Your task to perform on an android device: turn vacation reply on in the gmail app Image 0: 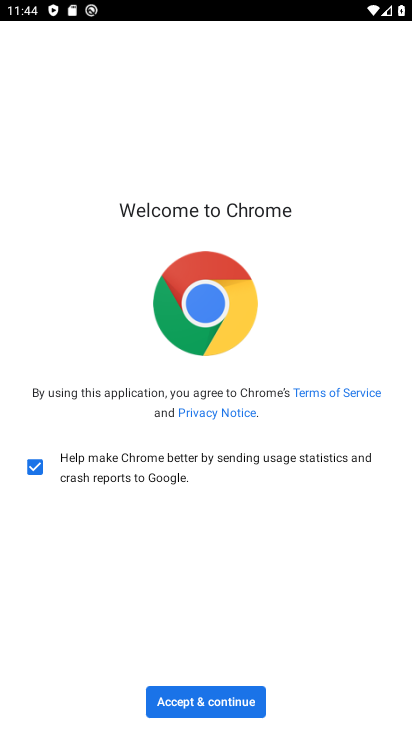
Step 0: press home button
Your task to perform on an android device: turn vacation reply on in the gmail app Image 1: 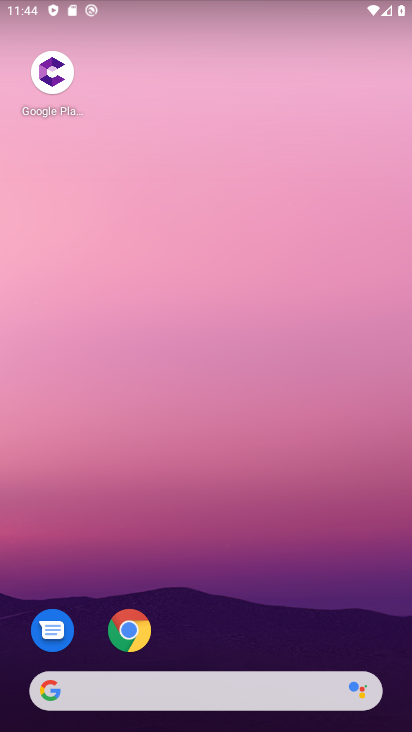
Step 1: drag from (186, 616) to (229, 123)
Your task to perform on an android device: turn vacation reply on in the gmail app Image 2: 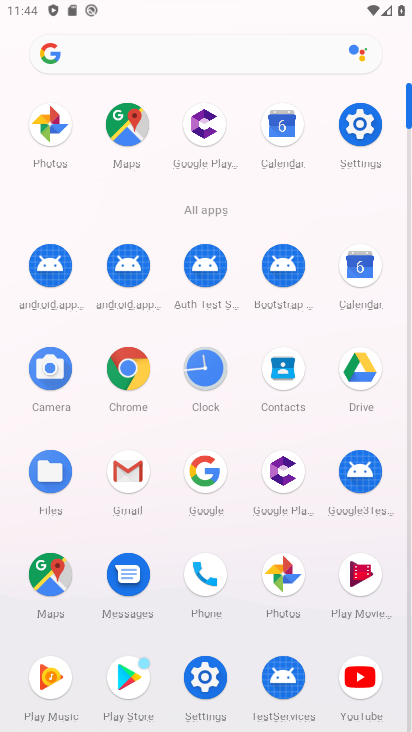
Step 2: click (130, 481)
Your task to perform on an android device: turn vacation reply on in the gmail app Image 3: 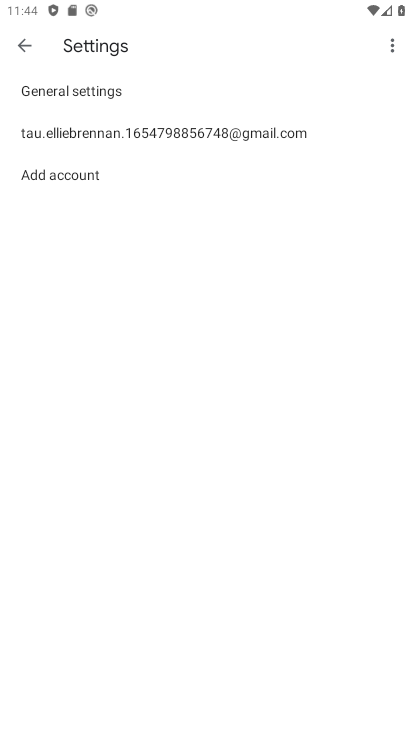
Step 3: click (88, 137)
Your task to perform on an android device: turn vacation reply on in the gmail app Image 4: 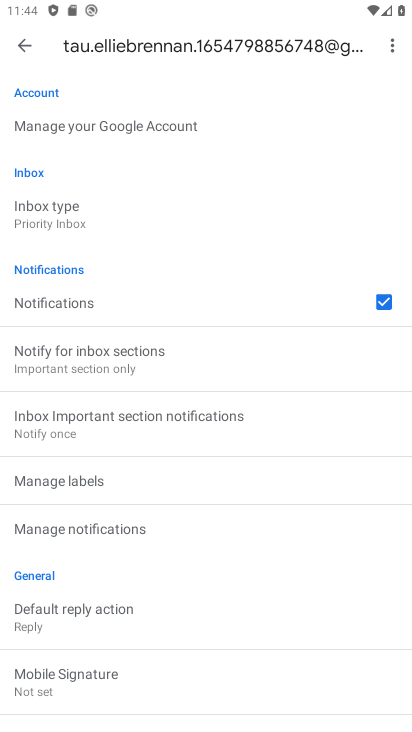
Step 4: drag from (167, 544) to (170, 329)
Your task to perform on an android device: turn vacation reply on in the gmail app Image 5: 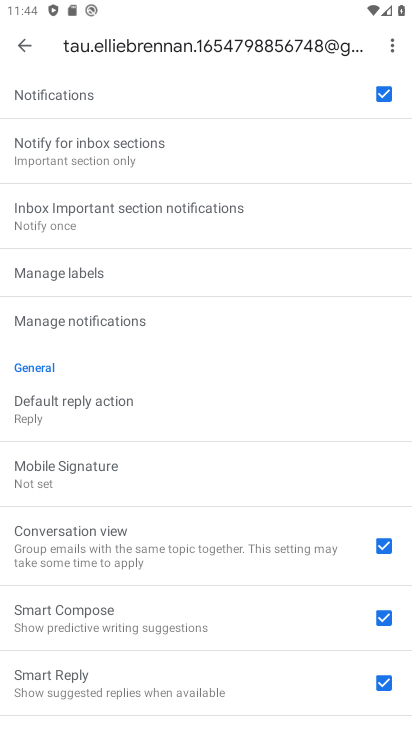
Step 5: drag from (173, 541) to (173, 450)
Your task to perform on an android device: turn vacation reply on in the gmail app Image 6: 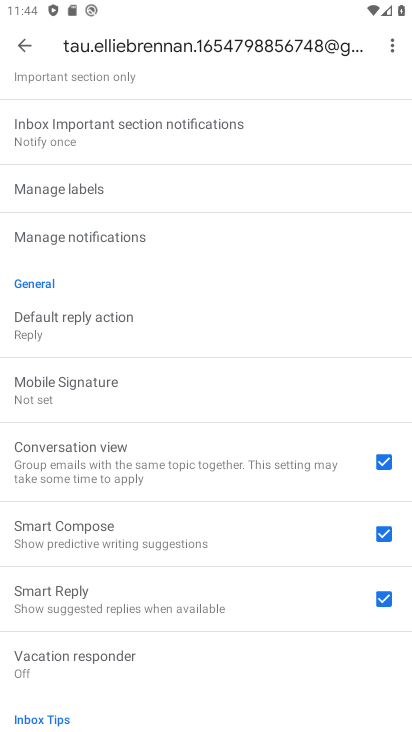
Step 6: click (92, 181)
Your task to perform on an android device: turn vacation reply on in the gmail app Image 7: 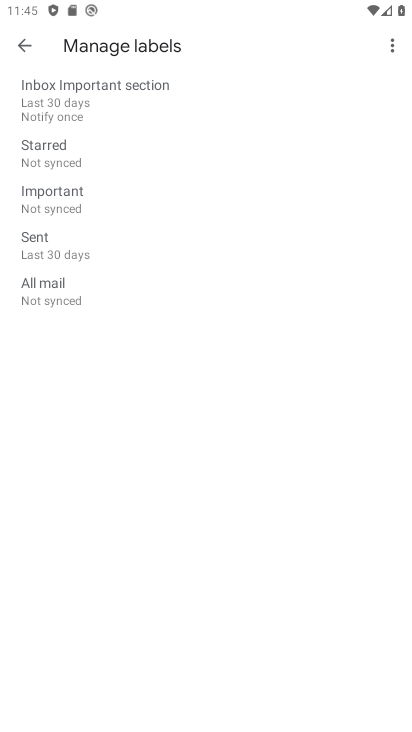
Step 7: task complete